Your task to perform on an android device: Open ESPN.com Image 0: 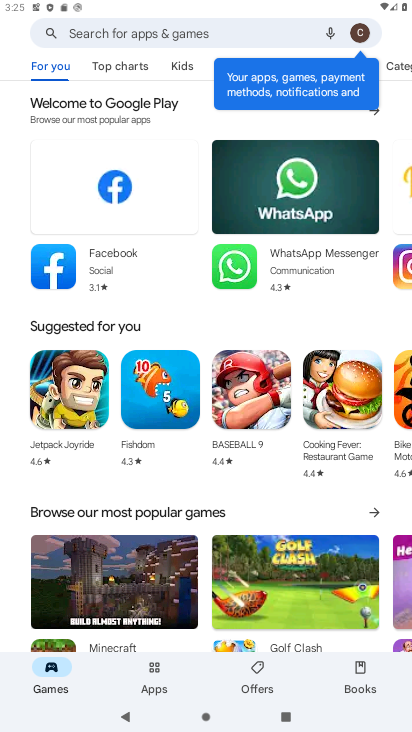
Step 0: drag from (198, 664) to (187, 46)
Your task to perform on an android device: Open ESPN.com Image 1: 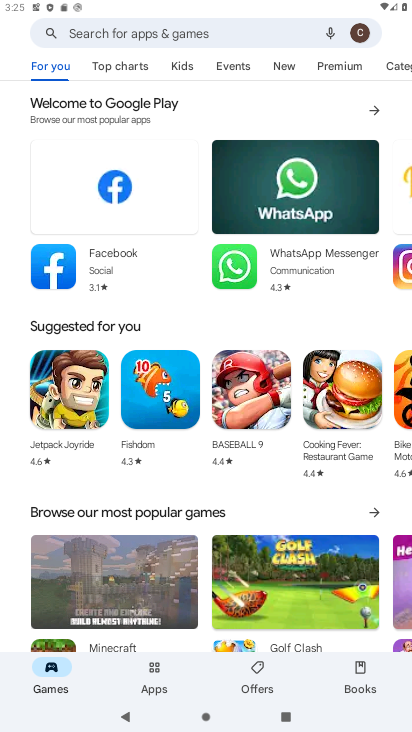
Step 1: press home button
Your task to perform on an android device: Open ESPN.com Image 2: 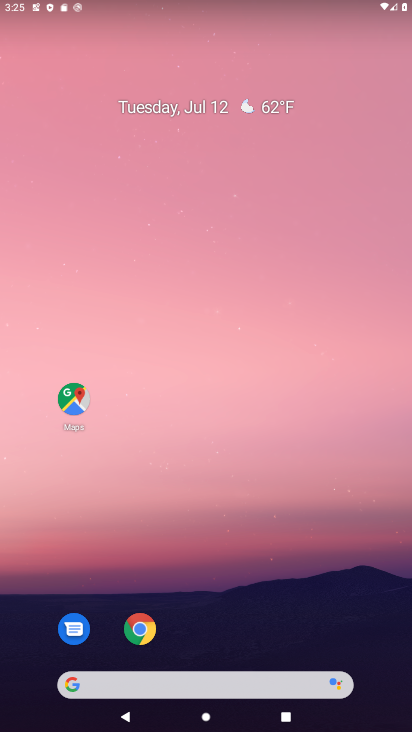
Step 2: click (151, 625)
Your task to perform on an android device: Open ESPN.com Image 3: 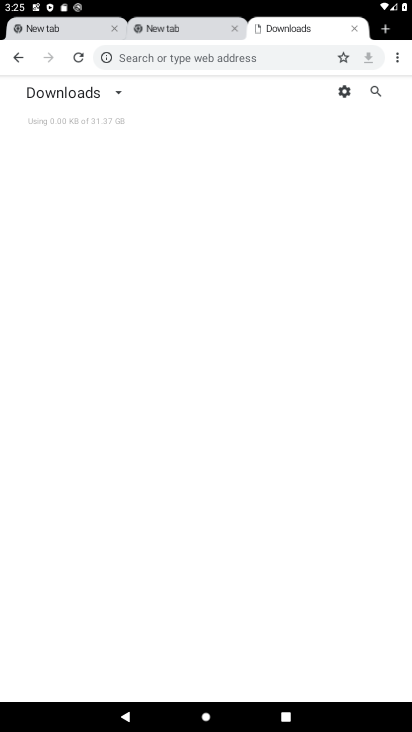
Step 3: click (94, 27)
Your task to perform on an android device: Open ESPN.com Image 4: 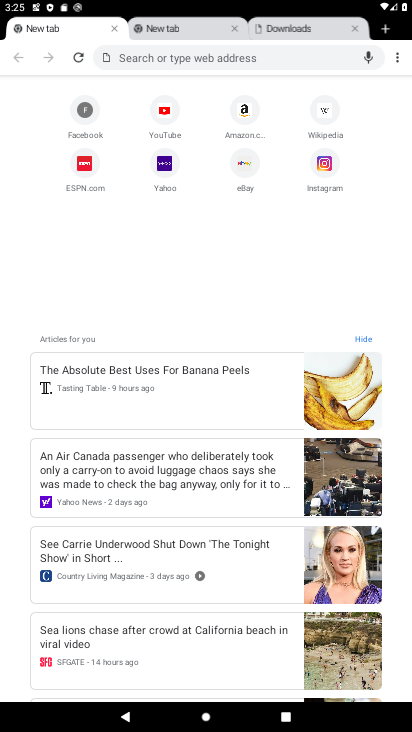
Step 4: click (73, 169)
Your task to perform on an android device: Open ESPN.com Image 5: 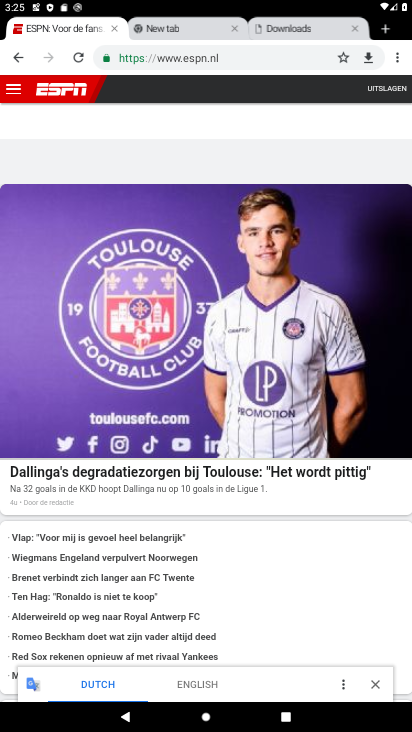
Step 5: task complete